Your task to perform on an android device: Open calendar and show me the first week of next month Image 0: 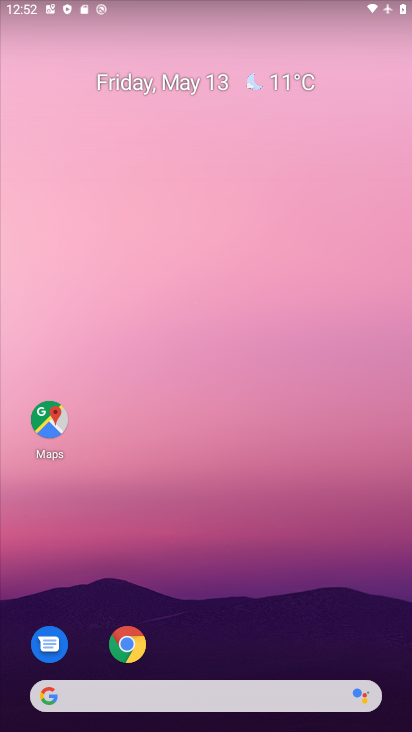
Step 0: drag from (214, 729) to (228, 150)
Your task to perform on an android device: Open calendar and show me the first week of next month Image 1: 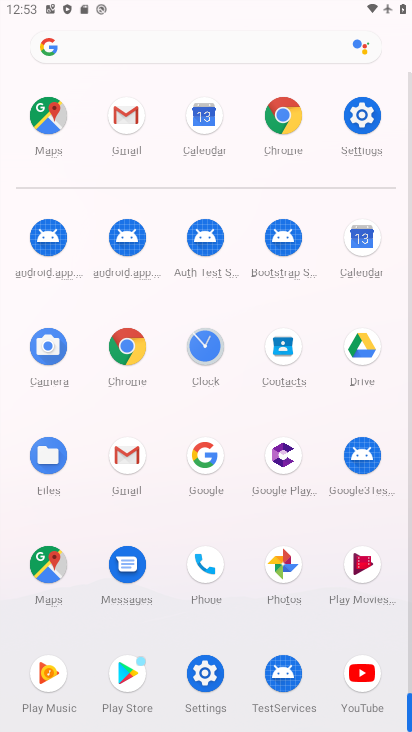
Step 1: click (360, 238)
Your task to perform on an android device: Open calendar and show me the first week of next month Image 2: 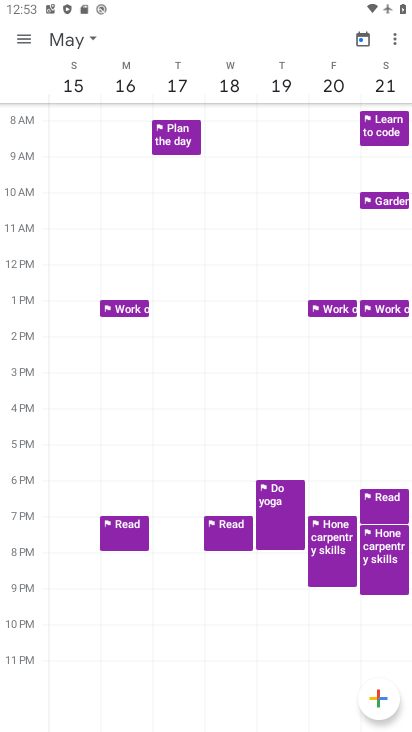
Step 2: click (66, 39)
Your task to perform on an android device: Open calendar and show me the first week of next month Image 3: 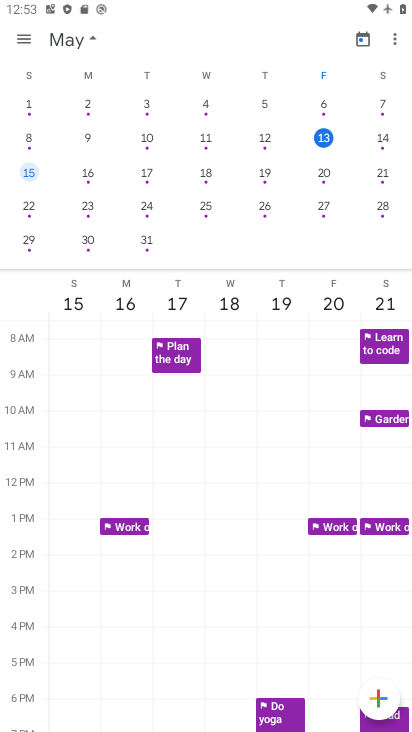
Step 3: drag from (354, 164) to (8, 143)
Your task to perform on an android device: Open calendar and show me the first week of next month Image 4: 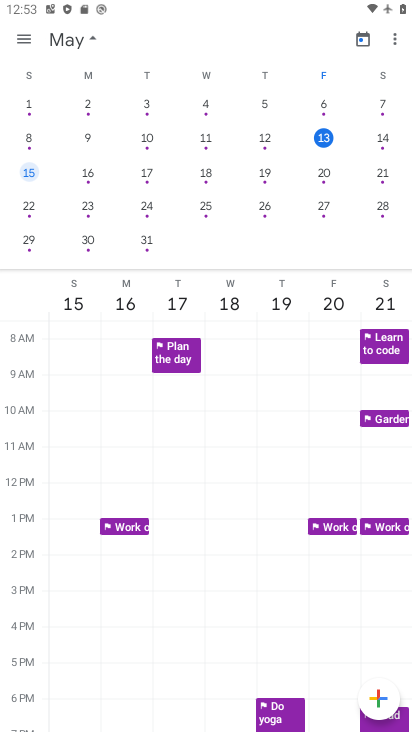
Step 4: drag from (356, 159) to (11, 144)
Your task to perform on an android device: Open calendar and show me the first week of next month Image 5: 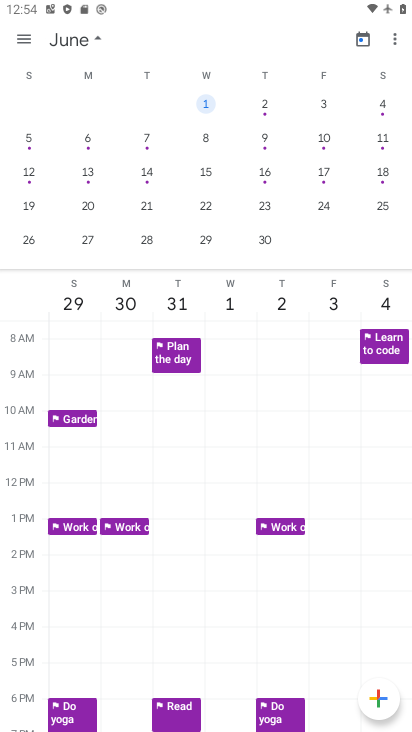
Step 5: click (86, 140)
Your task to perform on an android device: Open calendar and show me the first week of next month Image 6: 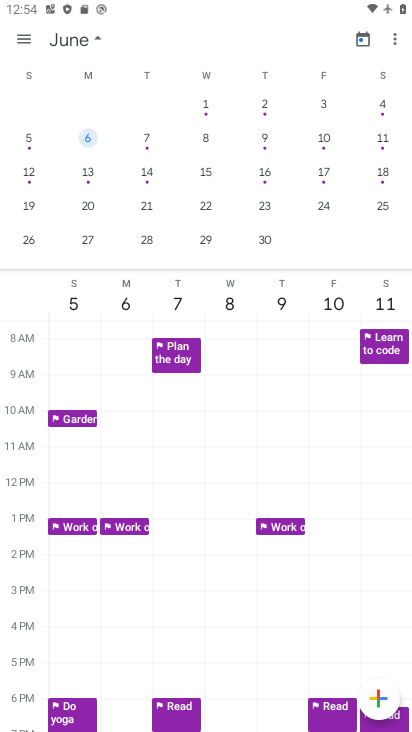
Step 6: task complete